Your task to perform on an android device: Open wifi settings Image 0: 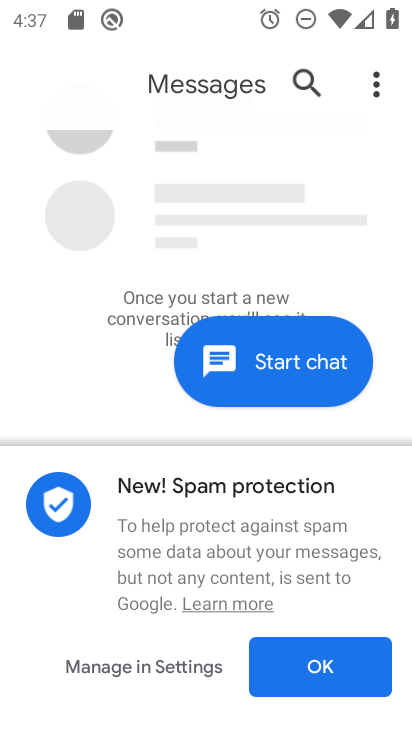
Step 0: press back button
Your task to perform on an android device: Open wifi settings Image 1: 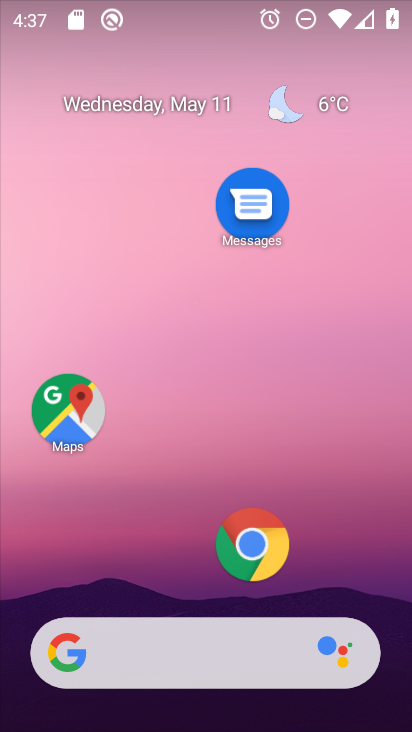
Step 1: drag from (66, 10) to (162, 475)
Your task to perform on an android device: Open wifi settings Image 2: 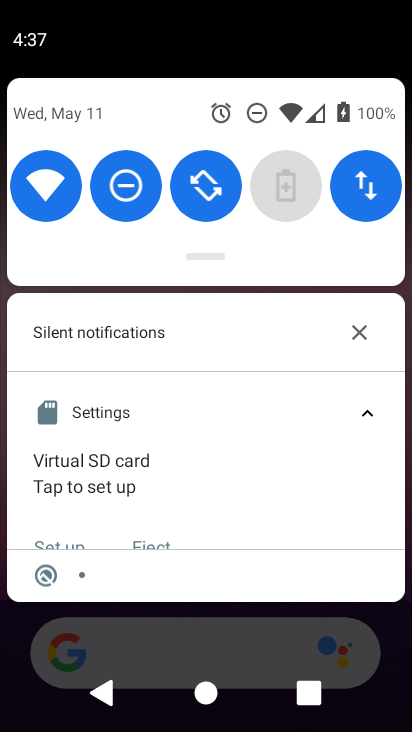
Step 2: click (25, 184)
Your task to perform on an android device: Open wifi settings Image 3: 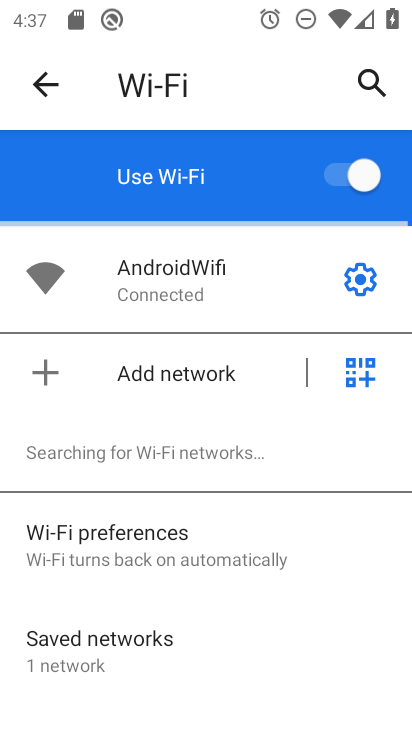
Step 3: task complete